Your task to perform on an android device: show emergency info Image 0: 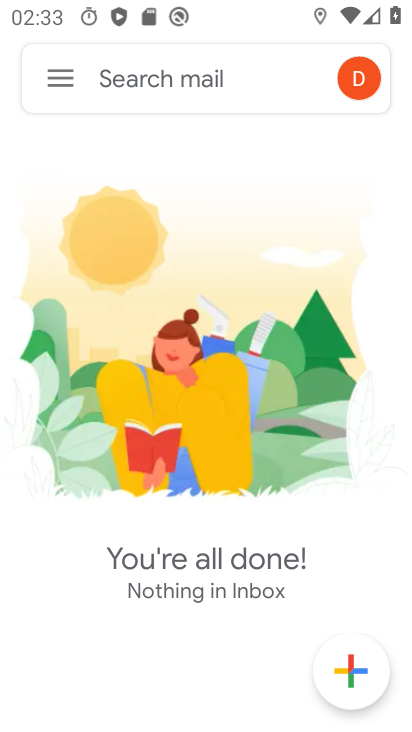
Step 0: press home button
Your task to perform on an android device: show emergency info Image 1: 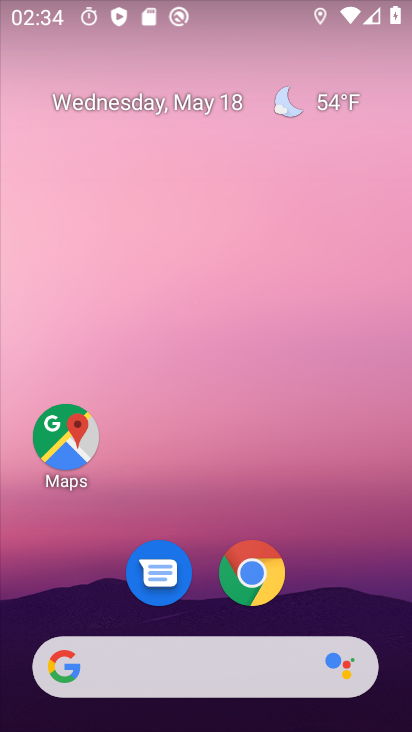
Step 1: drag from (204, 612) to (216, 214)
Your task to perform on an android device: show emergency info Image 2: 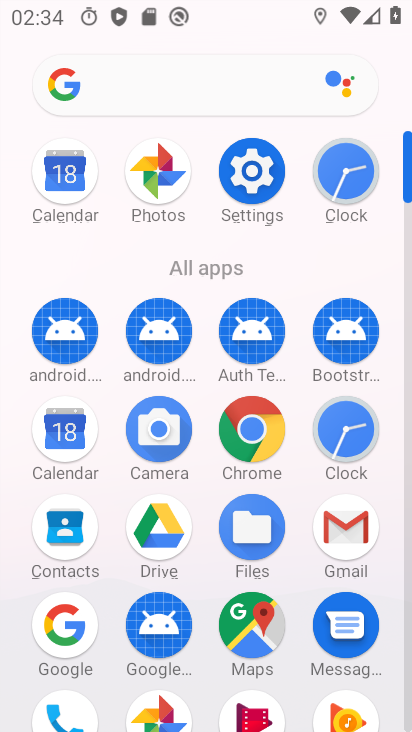
Step 2: click (250, 180)
Your task to perform on an android device: show emergency info Image 3: 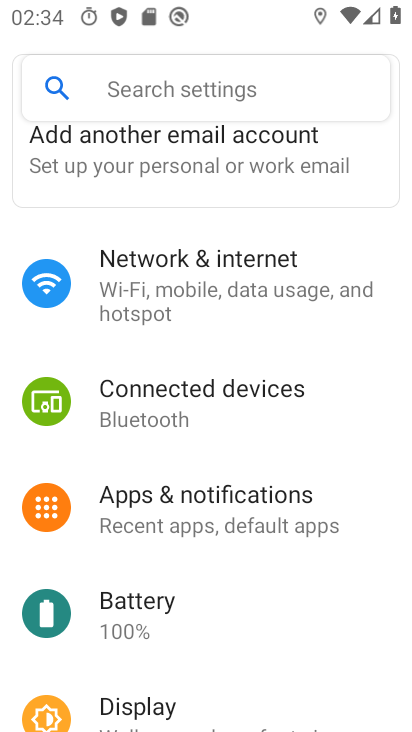
Step 3: drag from (214, 653) to (262, 328)
Your task to perform on an android device: show emergency info Image 4: 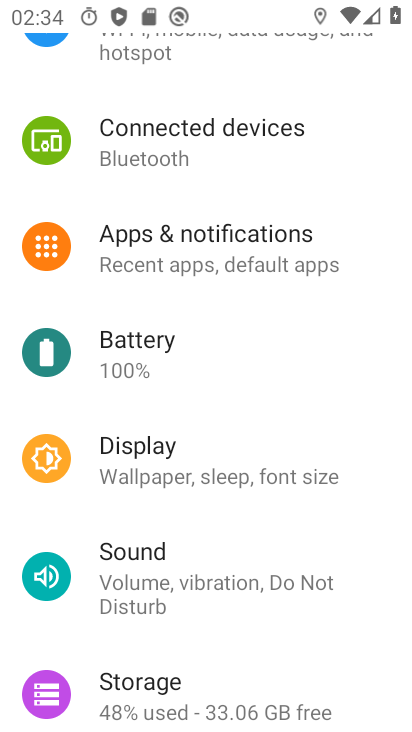
Step 4: drag from (234, 640) to (243, 332)
Your task to perform on an android device: show emergency info Image 5: 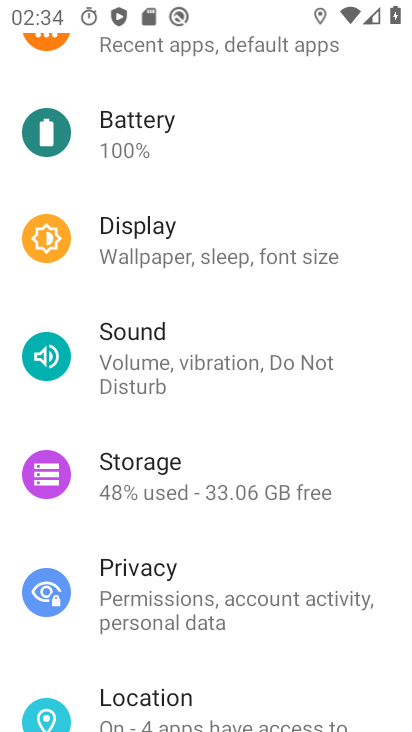
Step 5: drag from (243, 565) to (260, 306)
Your task to perform on an android device: show emergency info Image 6: 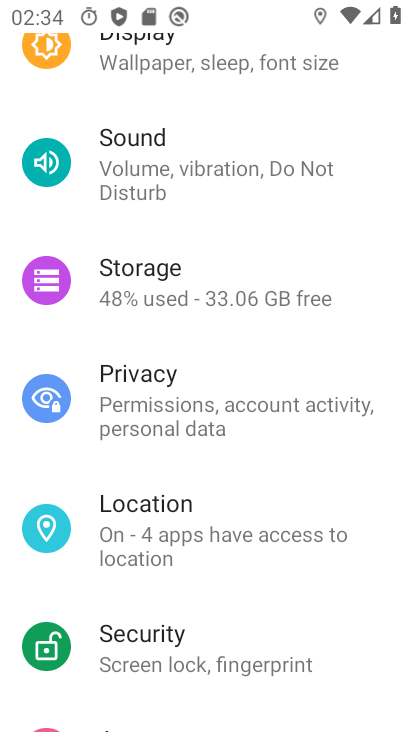
Step 6: drag from (214, 580) to (218, 331)
Your task to perform on an android device: show emergency info Image 7: 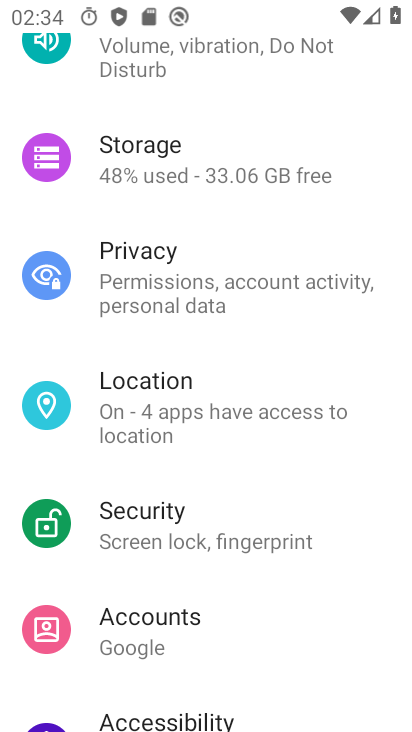
Step 7: drag from (208, 657) to (252, 319)
Your task to perform on an android device: show emergency info Image 8: 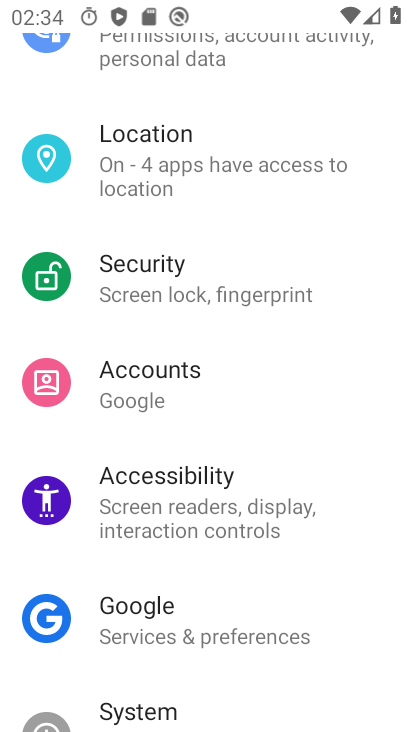
Step 8: drag from (238, 638) to (269, 364)
Your task to perform on an android device: show emergency info Image 9: 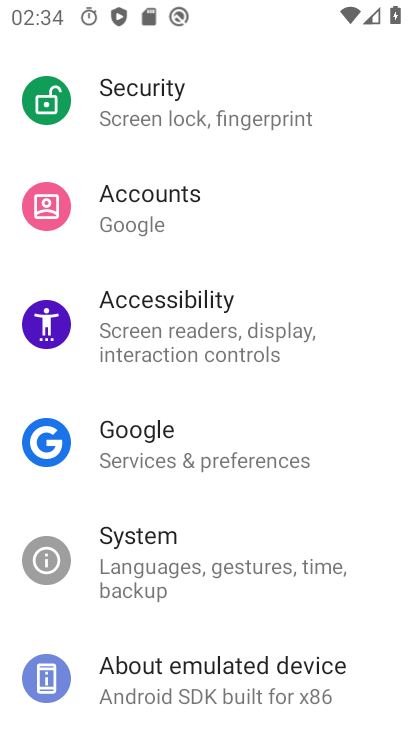
Step 9: click (206, 667)
Your task to perform on an android device: show emergency info Image 10: 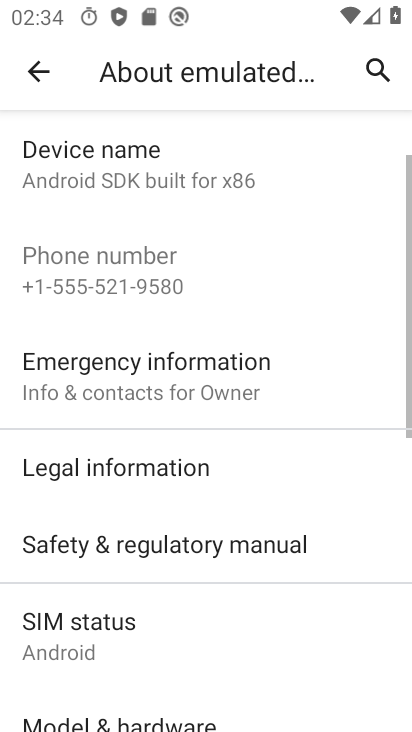
Step 10: click (151, 371)
Your task to perform on an android device: show emergency info Image 11: 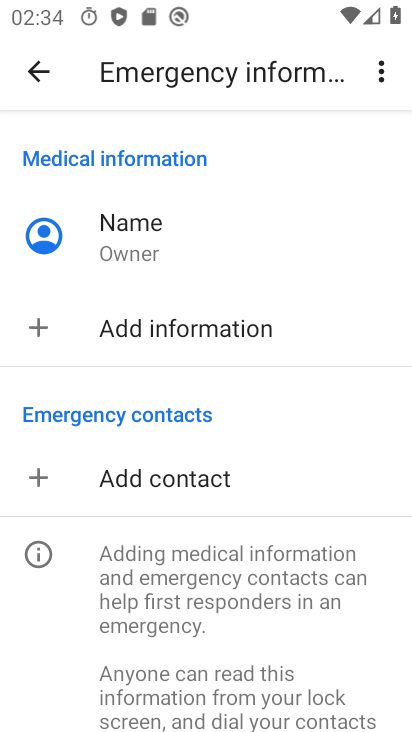
Step 11: task complete